Your task to perform on an android device: turn vacation reply on in the gmail app Image 0: 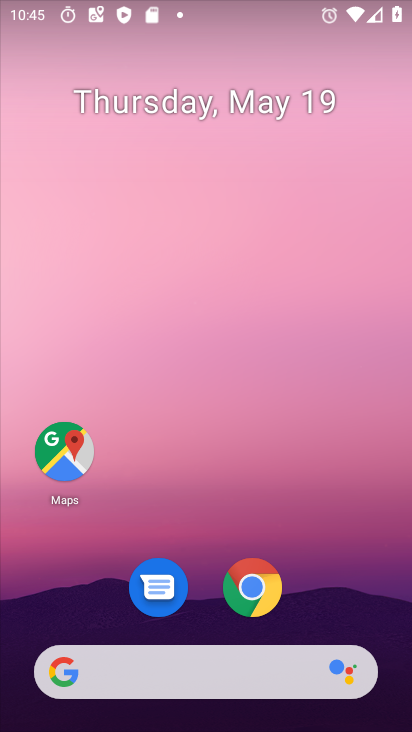
Step 0: drag from (372, 603) to (339, 180)
Your task to perform on an android device: turn vacation reply on in the gmail app Image 1: 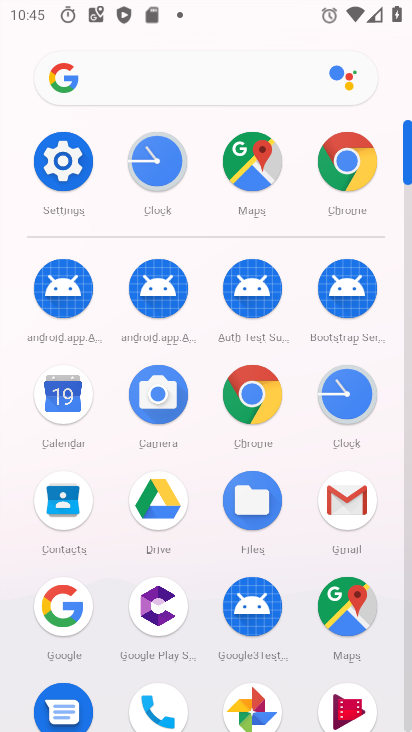
Step 1: click (339, 510)
Your task to perform on an android device: turn vacation reply on in the gmail app Image 2: 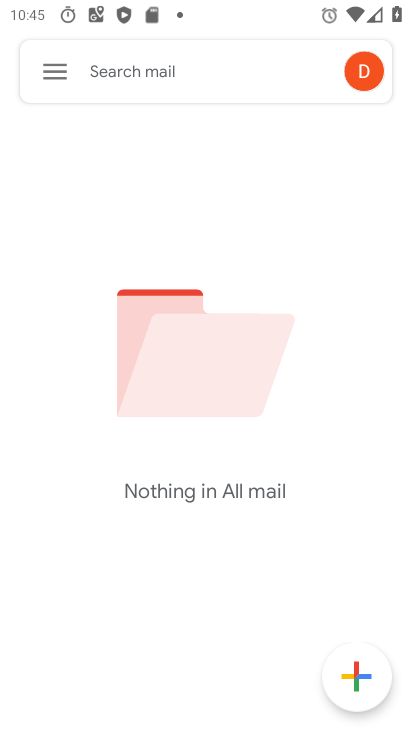
Step 2: click (49, 74)
Your task to perform on an android device: turn vacation reply on in the gmail app Image 3: 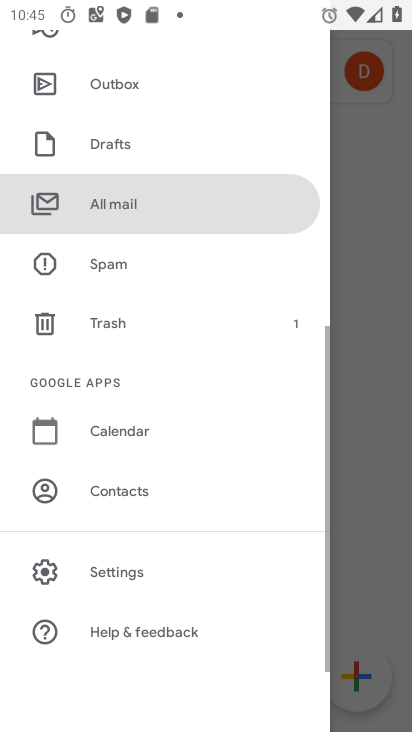
Step 3: drag from (188, 598) to (195, 293)
Your task to perform on an android device: turn vacation reply on in the gmail app Image 4: 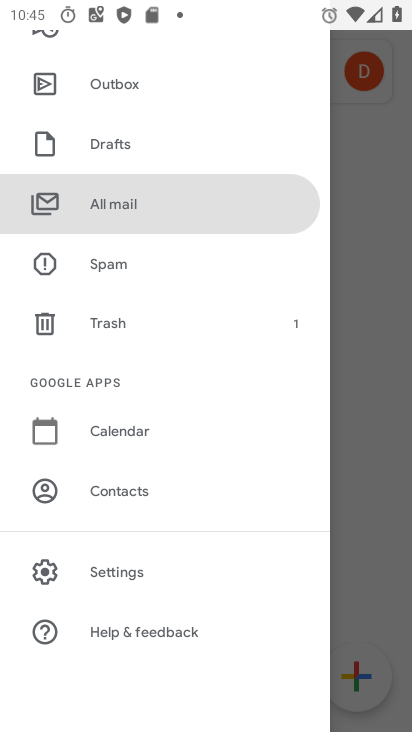
Step 4: click (166, 574)
Your task to perform on an android device: turn vacation reply on in the gmail app Image 5: 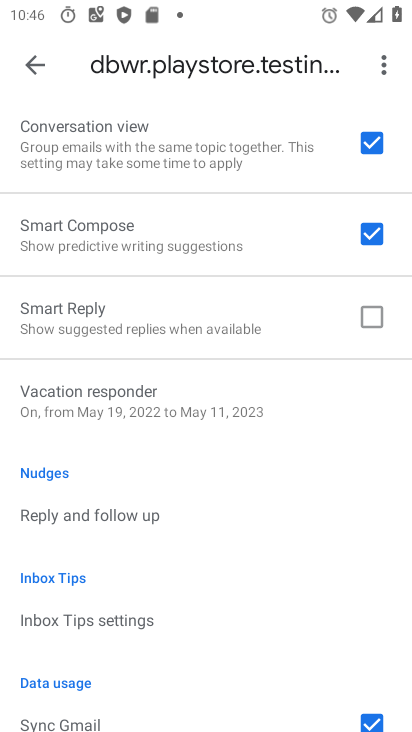
Step 5: click (232, 404)
Your task to perform on an android device: turn vacation reply on in the gmail app Image 6: 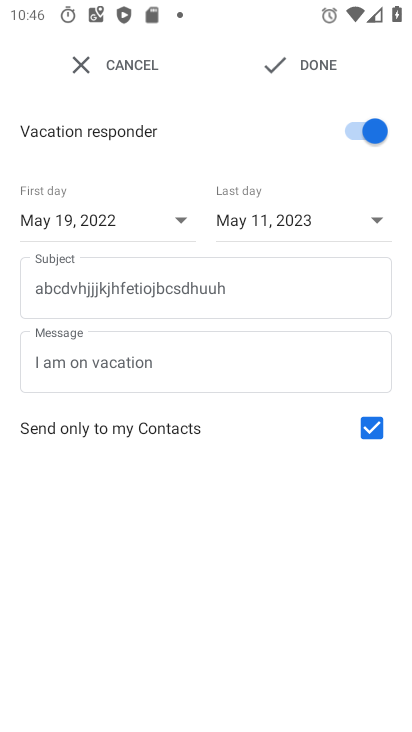
Step 6: task complete